Your task to perform on an android device: Open location settings Image 0: 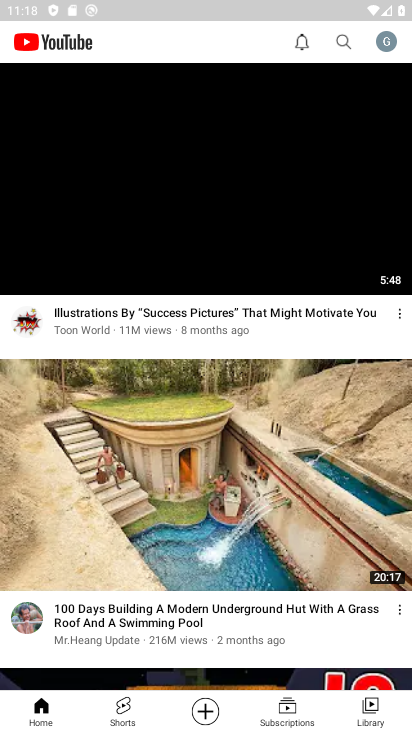
Step 0: press home button
Your task to perform on an android device: Open location settings Image 1: 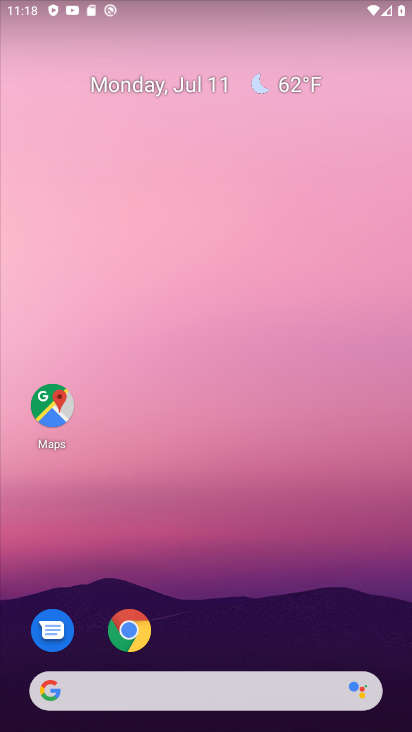
Step 1: drag from (335, 686) to (337, 40)
Your task to perform on an android device: Open location settings Image 2: 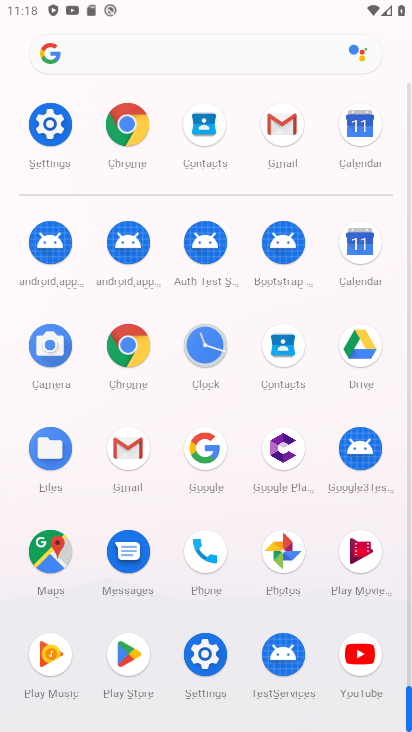
Step 2: click (44, 127)
Your task to perform on an android device: Open location settings Image 3: 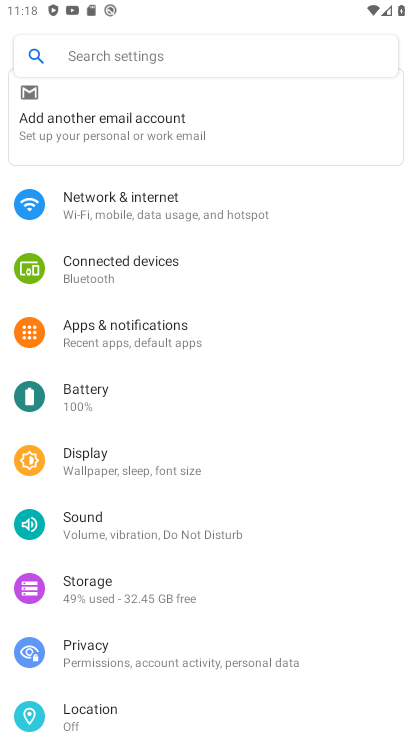
Step 3: click (151, 707)
Your task to perform on an android device: Open location settings Image 4: 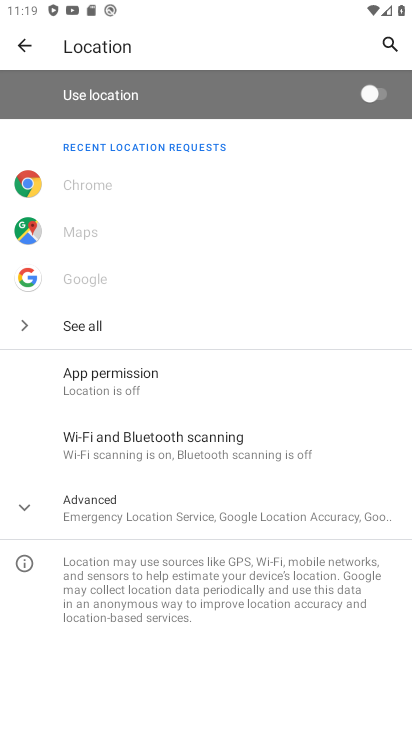
Step 4: task complete